Your task to perform on an android device: add a contact in the contacts app Image 0: 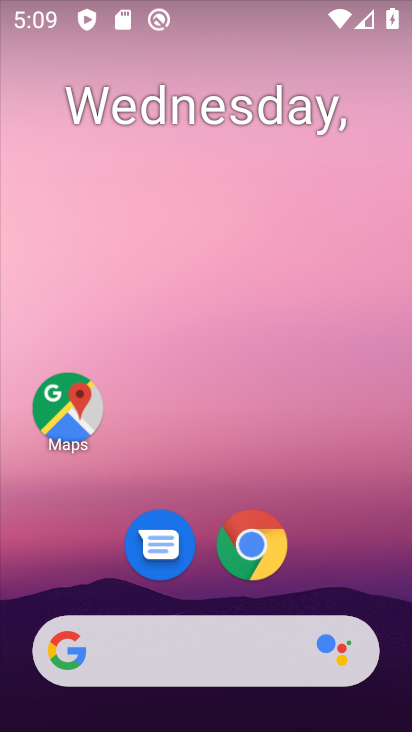
Step 0: drag from (254, 351) to (337, 20)
Your task to perform on an android device: add a contact in the contacts app Image 1: 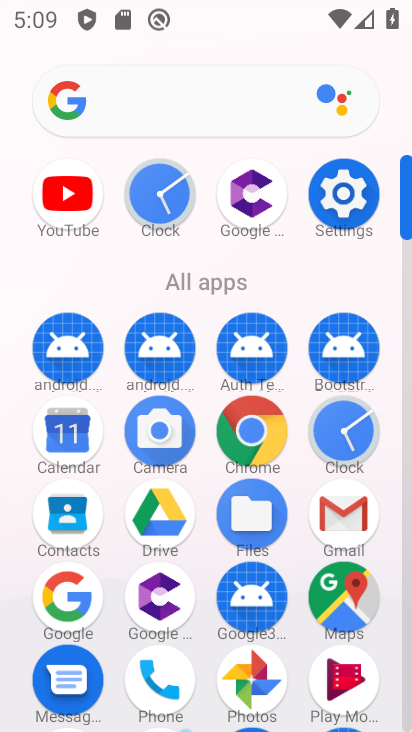
Step 1: click (58, 530)
Your task to perform on an android device: add a contact in the contacts app Image 2: 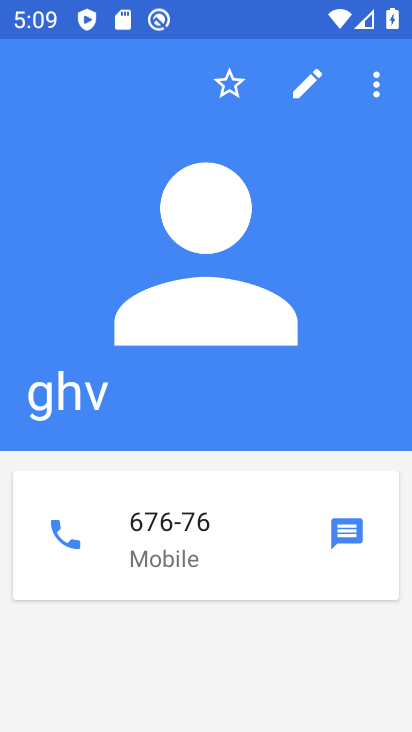
Step 2: press back button
Your task to perform on an android device: add a contact in the contacts app Image 3: 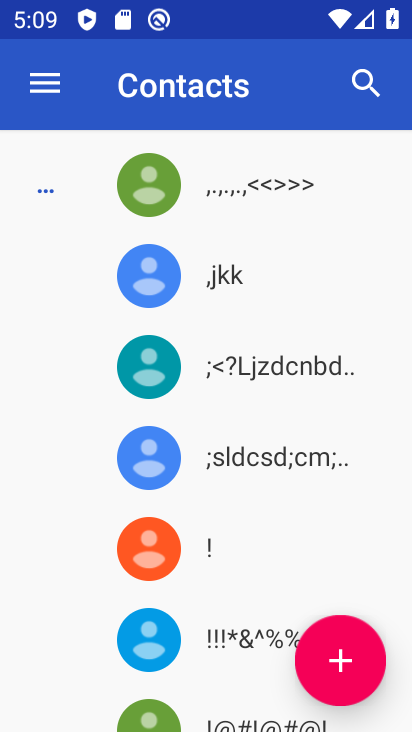
Step 3: click (357, 672)
Your task to perform on an android device: add a contact in the contacts app Image 4: 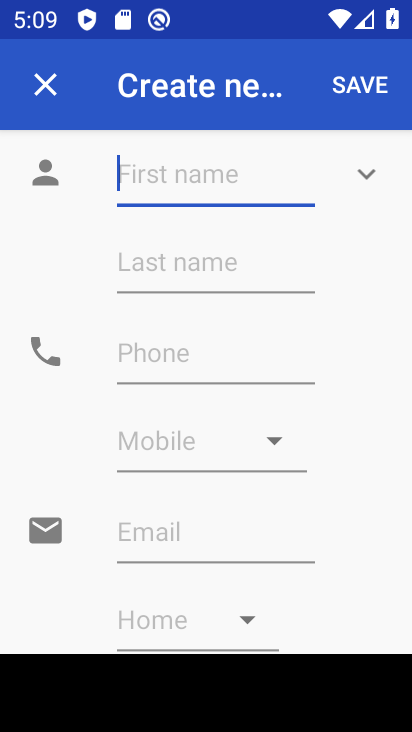
Step 4: click (160, 182)
Your task to perform on an android device: add a contact in the contacts app Image 5: 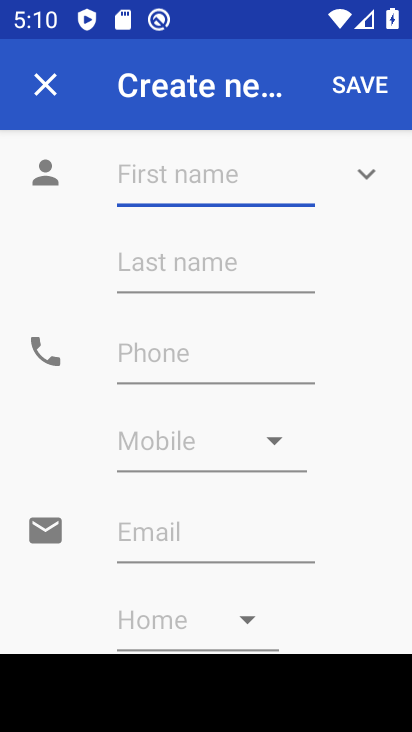
Step 5: type "gfhgrb"
Your task to perform on an android device: add a contact in the contacts app Image 6: 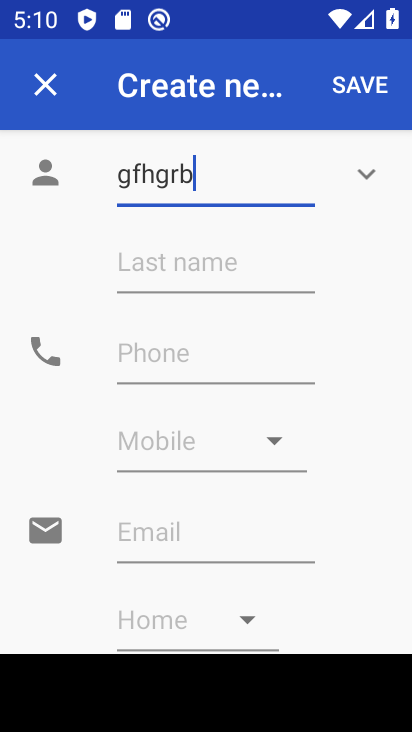
Step 6: click (170, 354)
Your task to perform on an android device: add a contact in the contacts app Image 7: 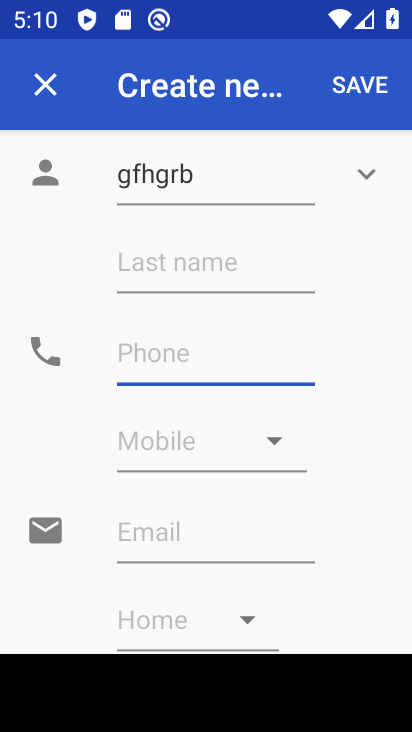
Step 7: type "65767"
Your task to perform on an android device: add a contact in the contacts app Image 8: 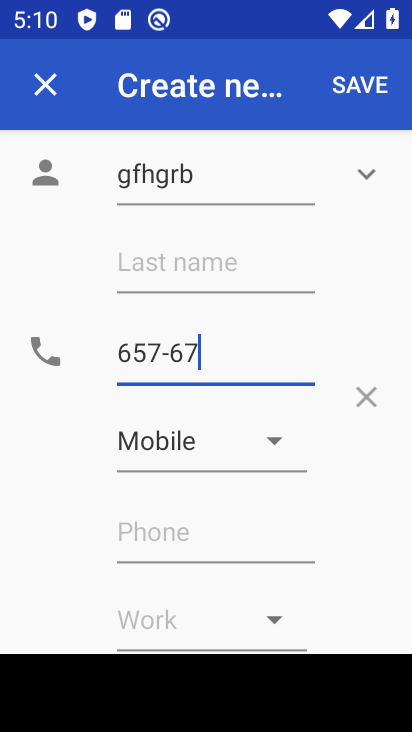
Step 8: click (363, 92)
Your task to perform on an android device: add a contact in the contacts app Image 9: 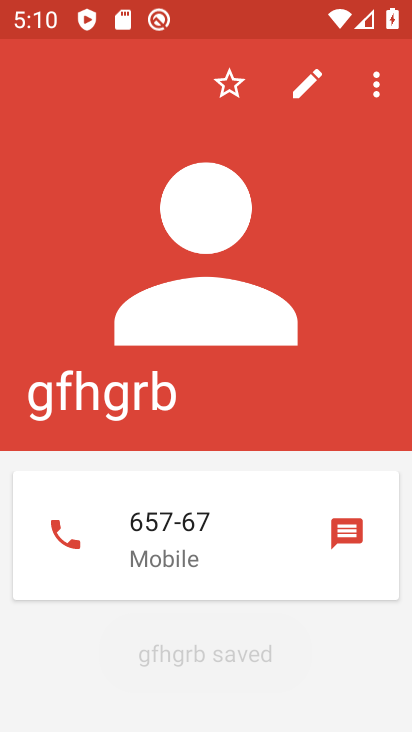
Step 9: task complete